Your task to perform on an android device: Open privacy settings Image 0: 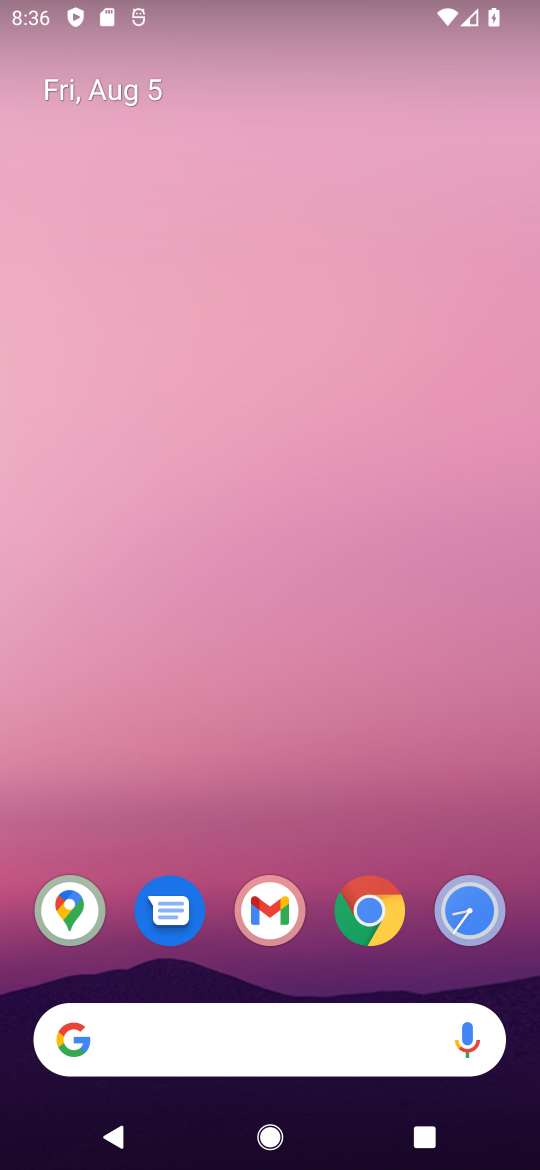
Step 0: press home button
Your task to perform on an android device: Open privacy settings Image 1: 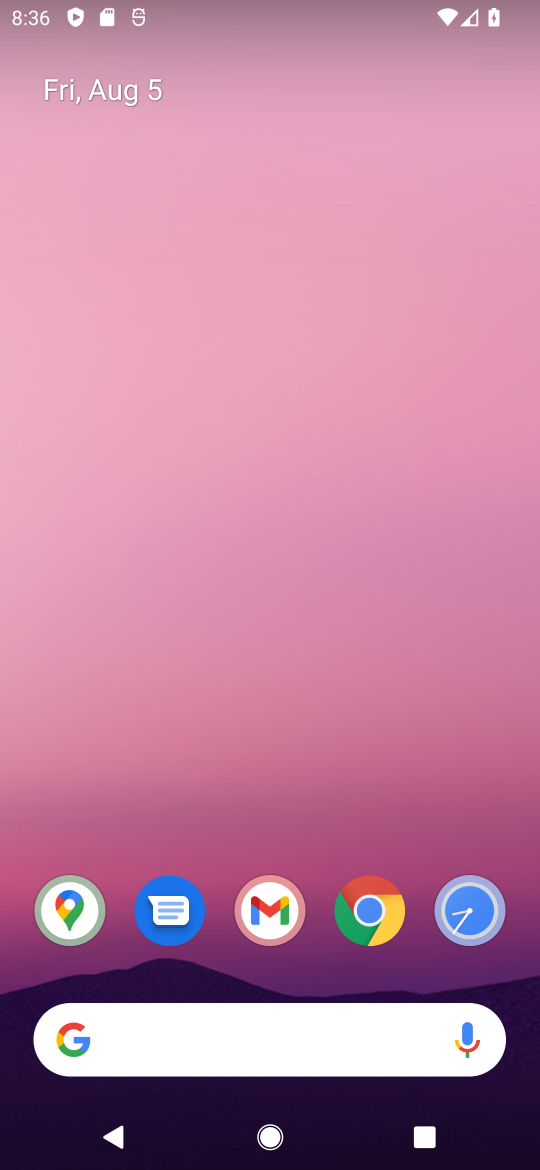
Step 1: drag from (303, 1007) to (383, 73)
Your task to perform on an android device: Open privacy settings Image 2: 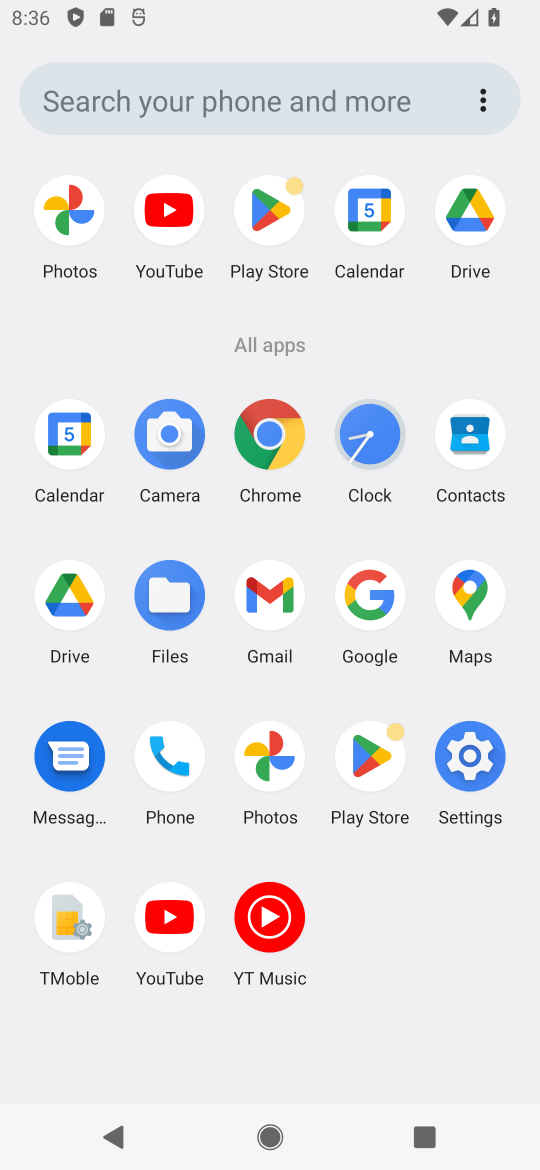
Step 2: click (468, 740)
Your task to perform on an android device: Open privacy settings Image 3: 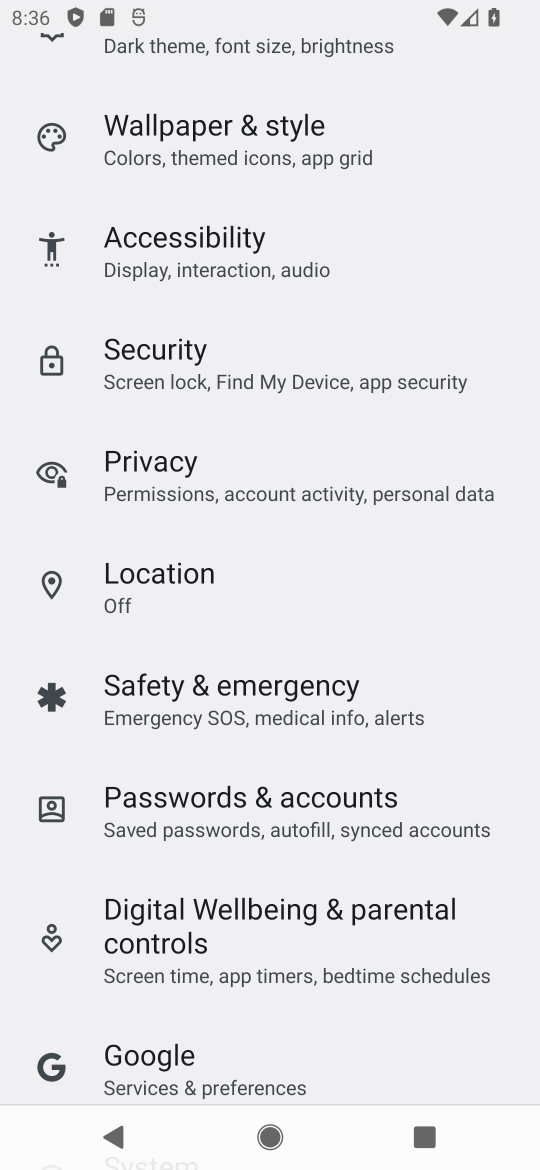
Step 3: click (157, 469)
Your task to perform on an android device: Open privacy settings Image 4: 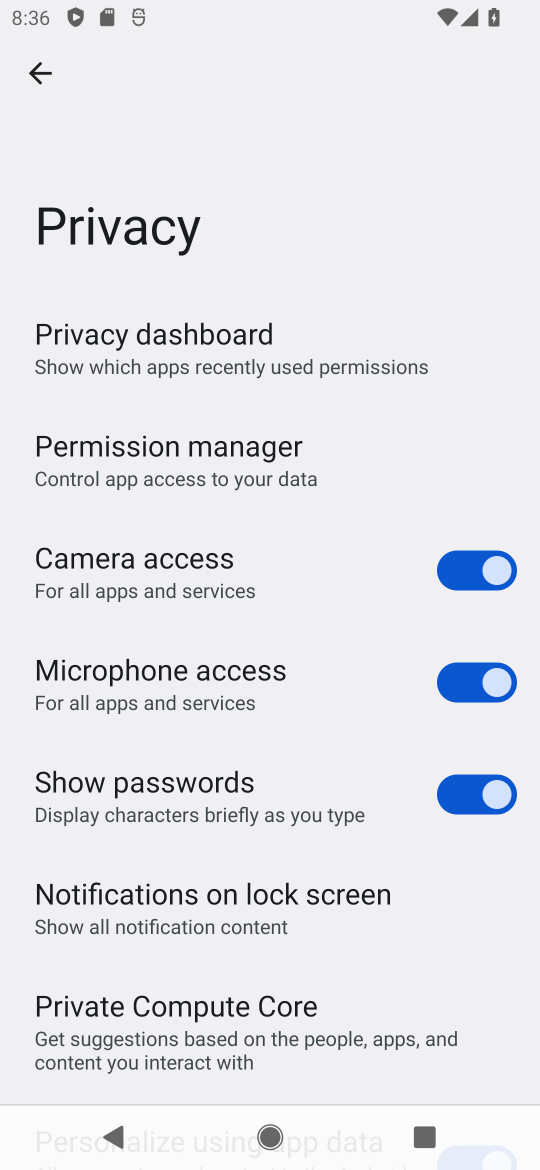
Step 4: task complete